Your task to perform on an android device: read, delete, or share a saved page in the chrome app Image 0: 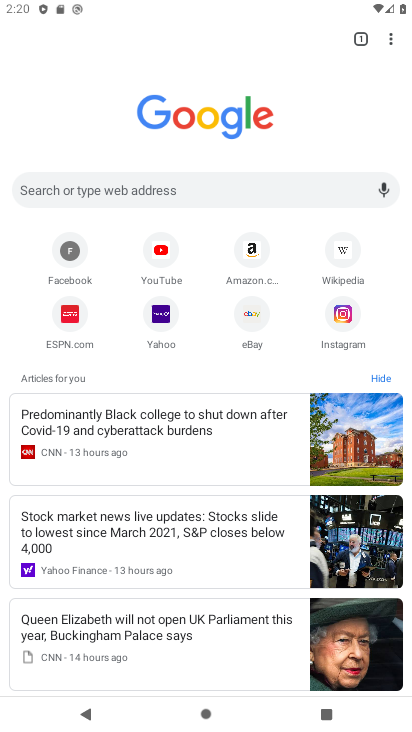
Step 0: click (389, 42)
Your task to perform on an android device: read, delete, or share a saved page in the chrome app Image 1: 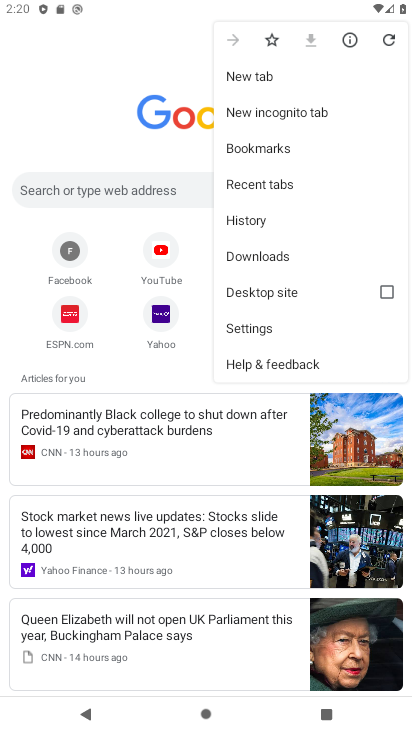
Step 1: click (247, 255)
Your task to perform on an android device: read, delete, or share a saved page in the chrome app Image 2: 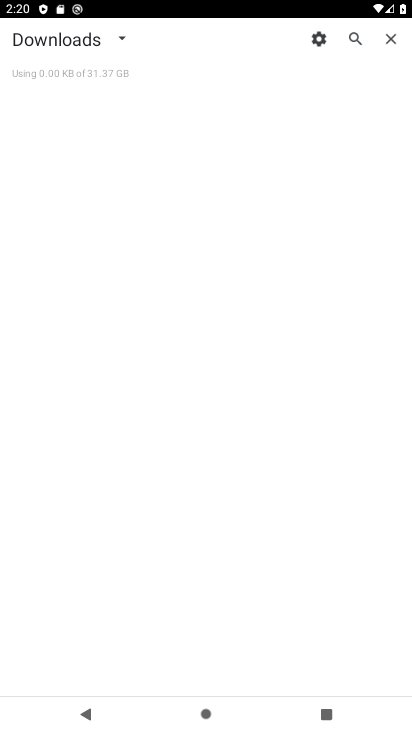
Step 2: click (122, 37)
Your task to perform on an android device: read, delete, or share a saved page in the chrome app Image 3: 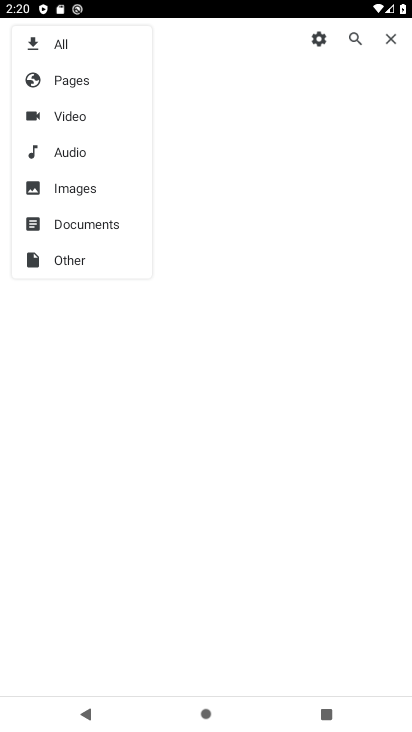
Step 3: click (62, 78)
Your task to perform on an android device: read, delete, or share a saved page in the chrome app Image 4: 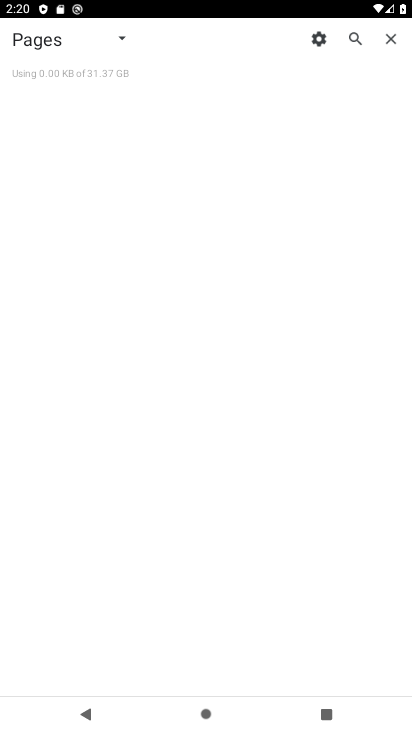
Step 4: task complete